Your task to perform on an android device: Check the settings for the Google Maps app Image 0: 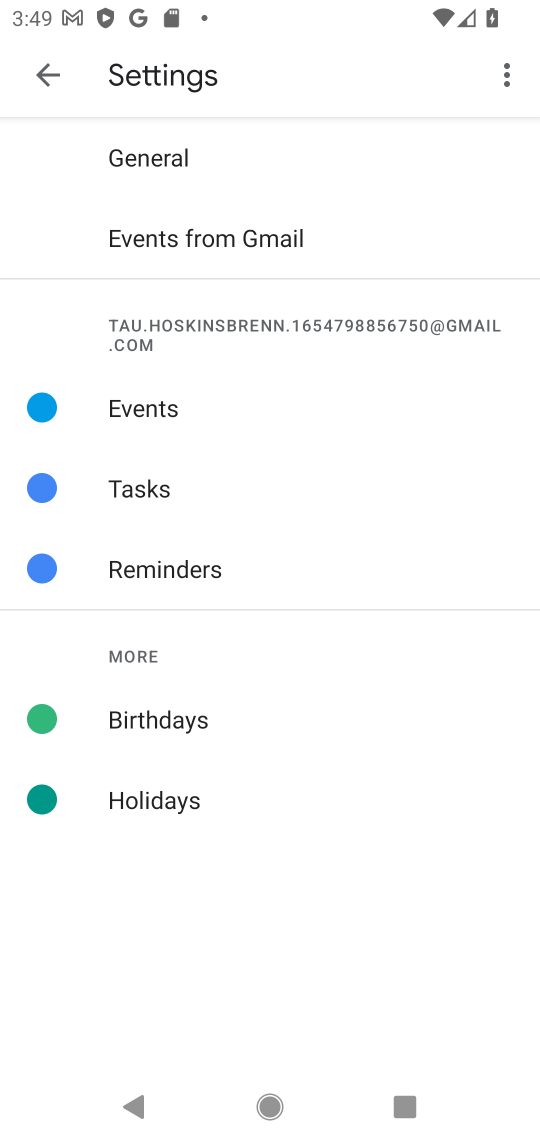
Step 0: press home button
Your task to perform on an android device: Check the settings for the Google Maps app Image 1: 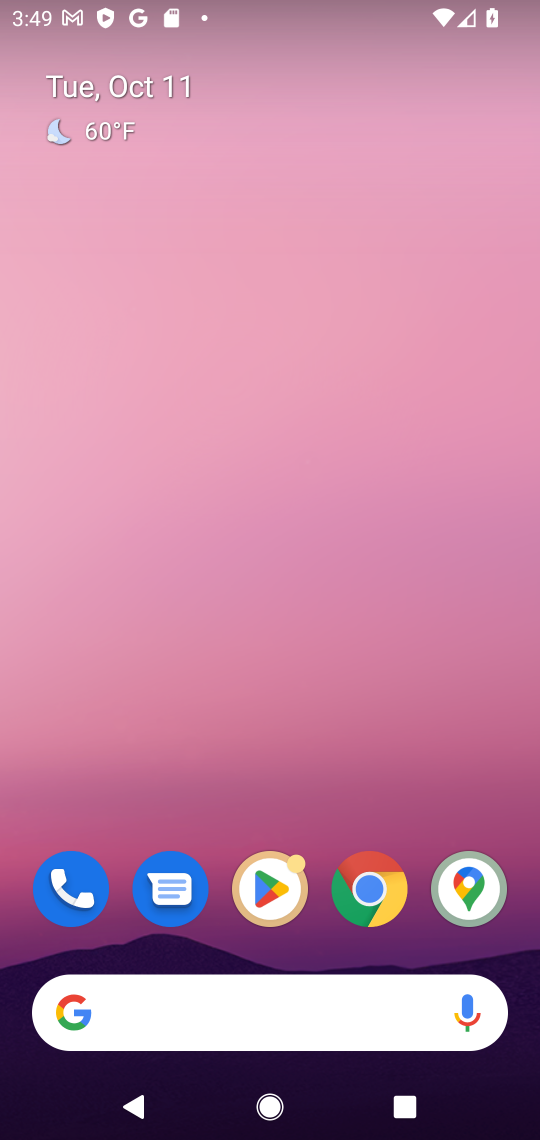
Step 1: drag from (250, 997) to (326, 298)
Your task to perform on an android device: Check the settings for the Google Maps app Image 2: 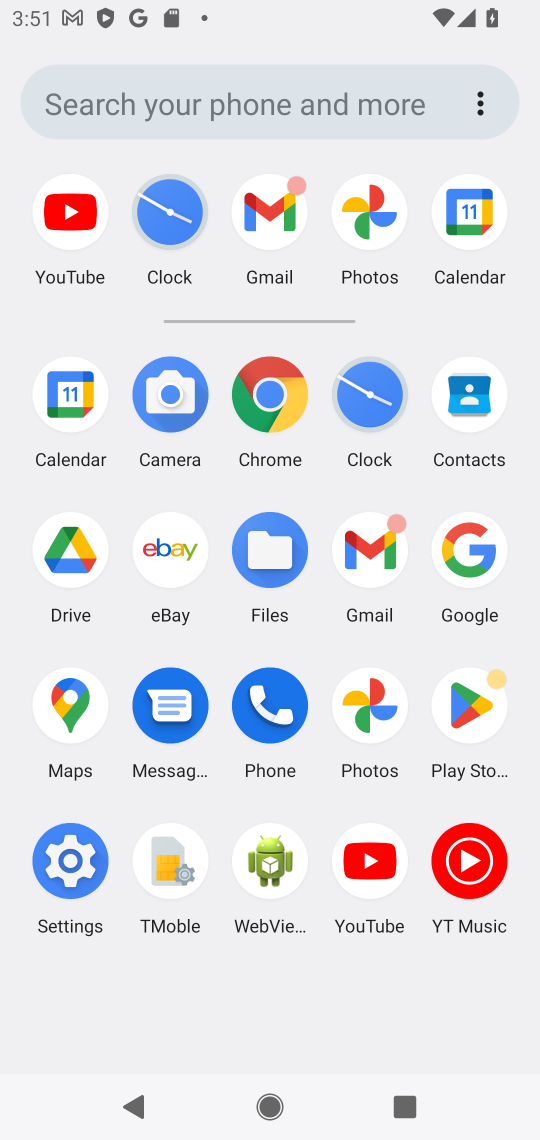
Step 2: click (62, 693)
Your task to perform on an android device: Check the settings for the Google Maps app Image 3: 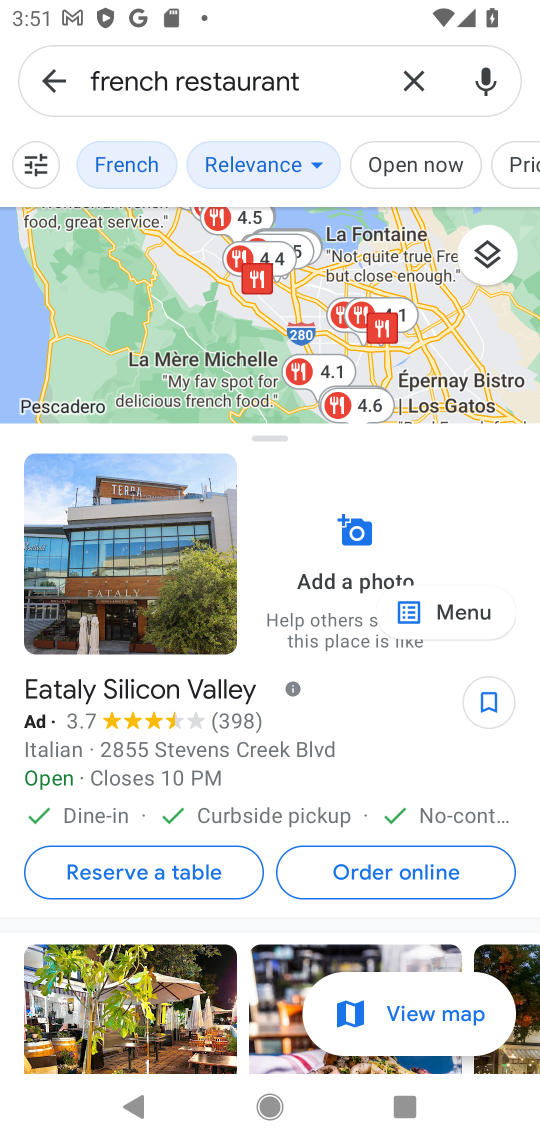
Step 3: click (417, 80)
Your task to perform on an android device: Check the settings for the Google Maps app Image 4: 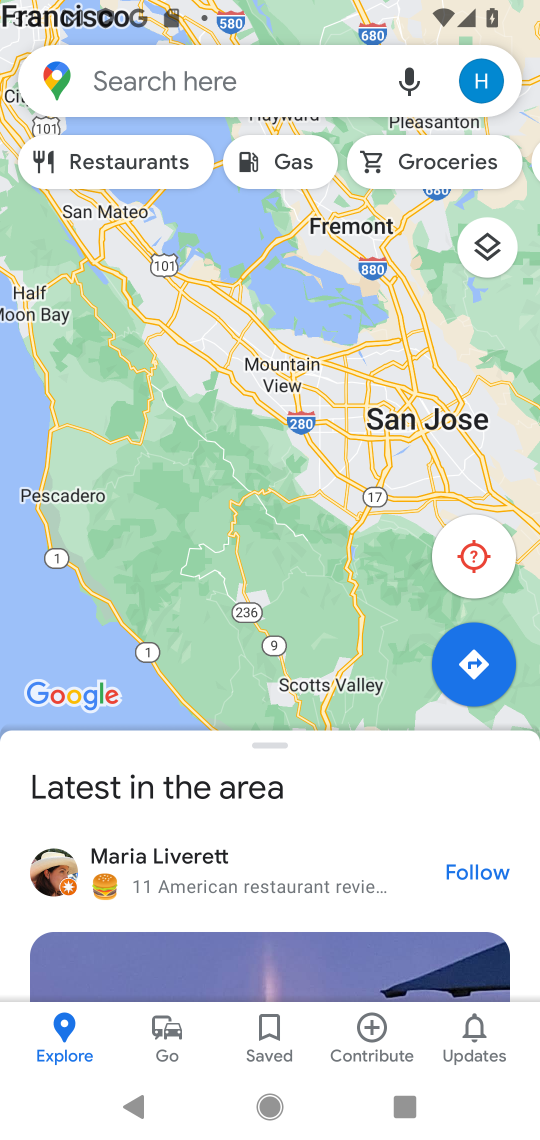
Step 4: click (473, 76)
Your task to perform on an android device: Check the settings for the Google Maps app Image 5: 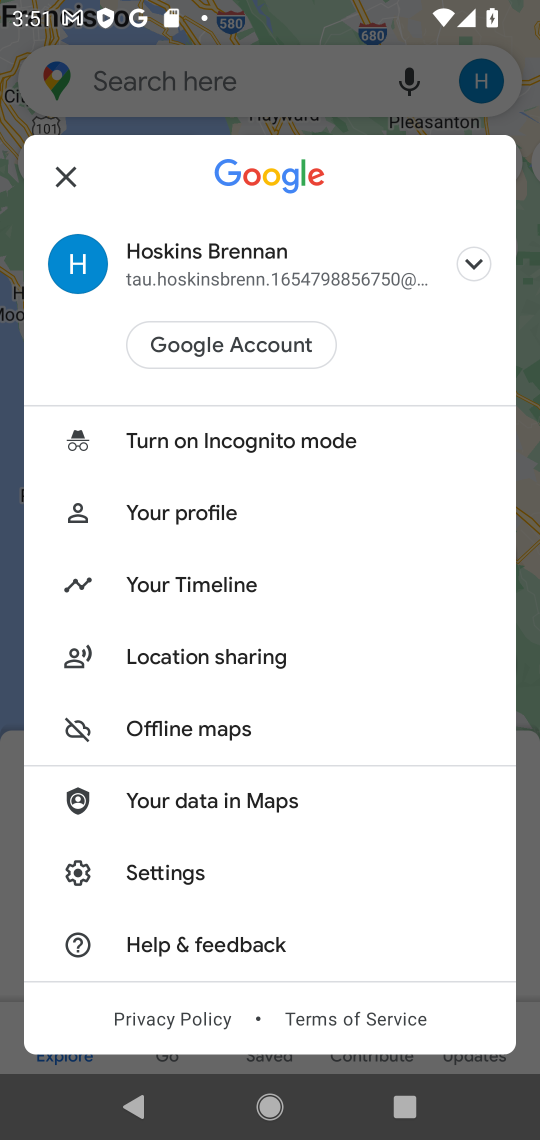
Step 5: click (164, 875)
Your task to perform on an android device: Check the settings for the Google Maps app Image 6: 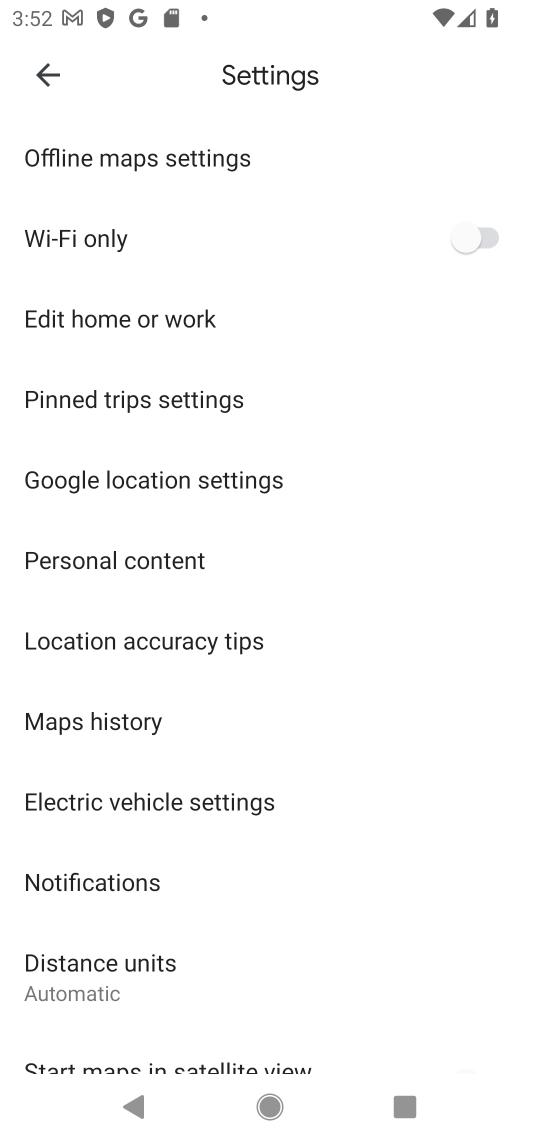
Step 6: task complete